Your task to perform on an android device: Open the calendar app, open the side menu, and click the "Day" option Image 0: 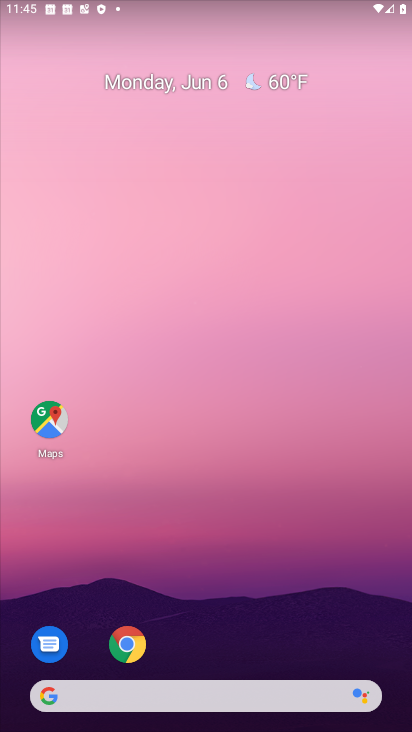
Step 0: drag from (211, 602) to (286, 80)
Your task to perform on an android device: Open the calendar app, open the side menu, and click the "Day" option Image 1: 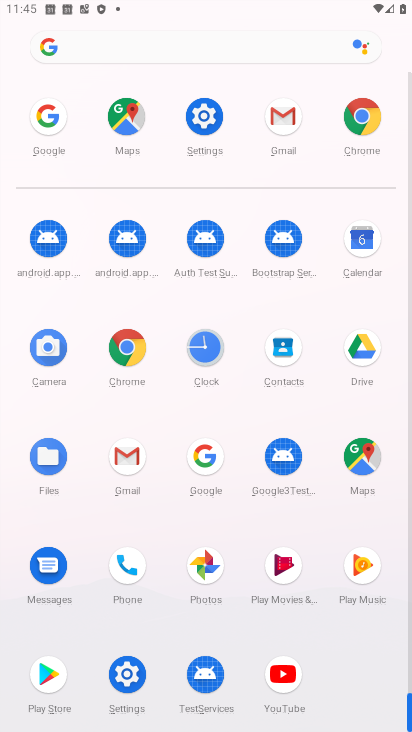
Step 1: click (369, 132)
Your task to perform on an android device: Open the calendar app, open the side menu, and click the "Day" option Image 2: 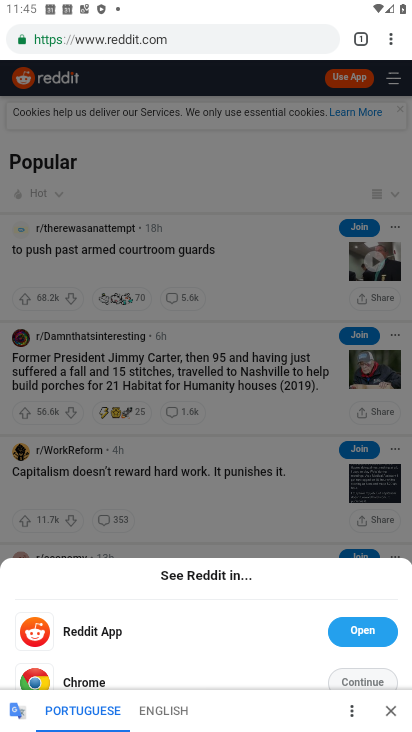
Step 2: click (395, 40)
Your task to perform on an android device: Open the calendar app, open the side menu, and click the "Day" option Image 3: 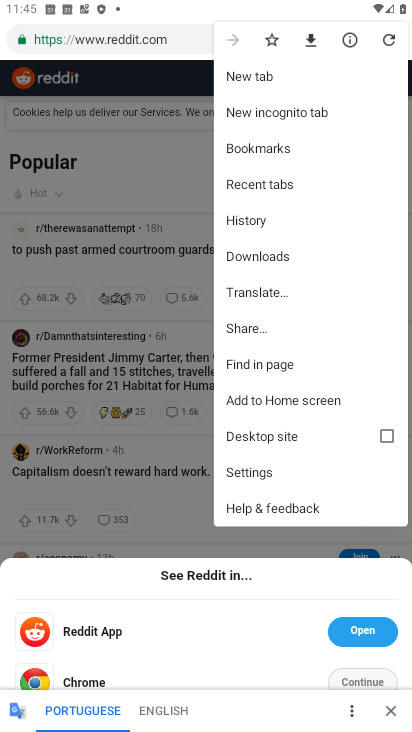
Step 3: press home button
Your task to perform on an android device: Open the calendar app, open the side menu, and click the "Day" option Image 4: 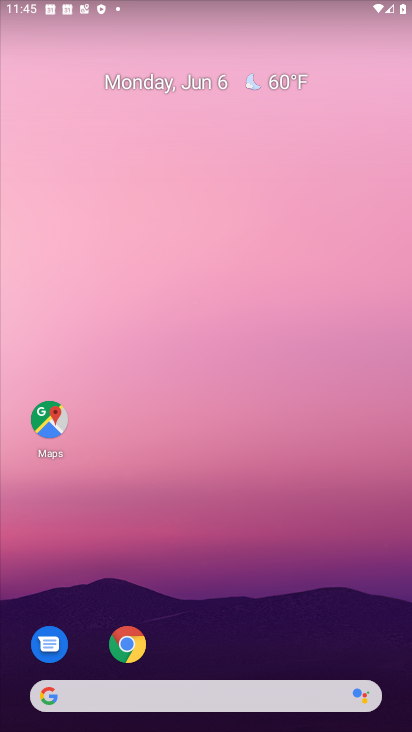
Step 4: drag from (238, 562) to (318, 59)
Your task to perform on an android device: Open the calendar app, open the side menu, and click the "Day" option Image 5: 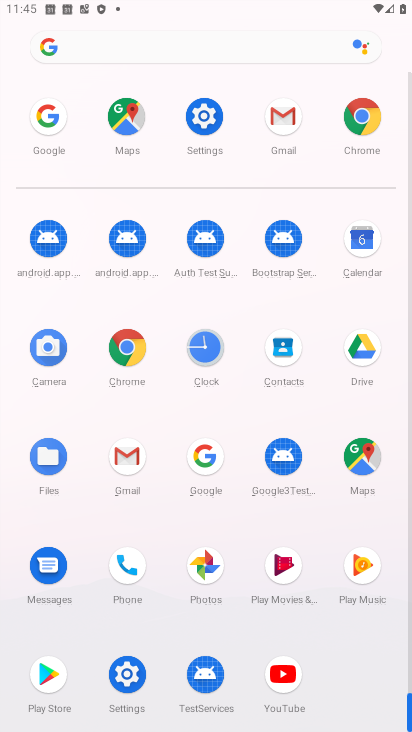
Step 5: click (365, 260)
Your task to perform on an android device: Open the calendar app, open the side menu, and click the "Day" option Image 6: 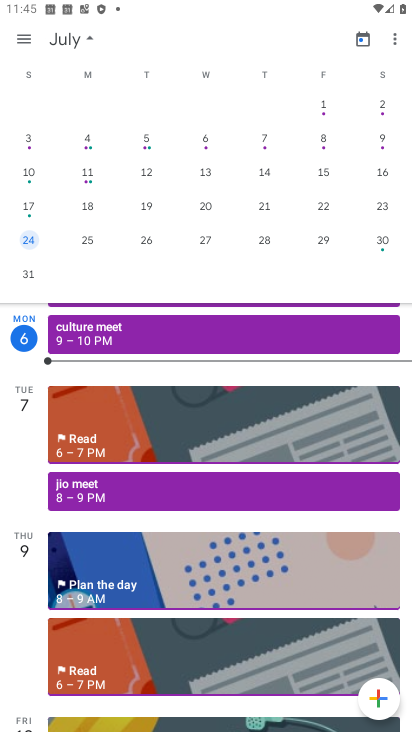
Step 6: click (6, 41)
Your task to perform on an android device: Open the calendar app, open the side menu, and click the "Day" option Image 7: 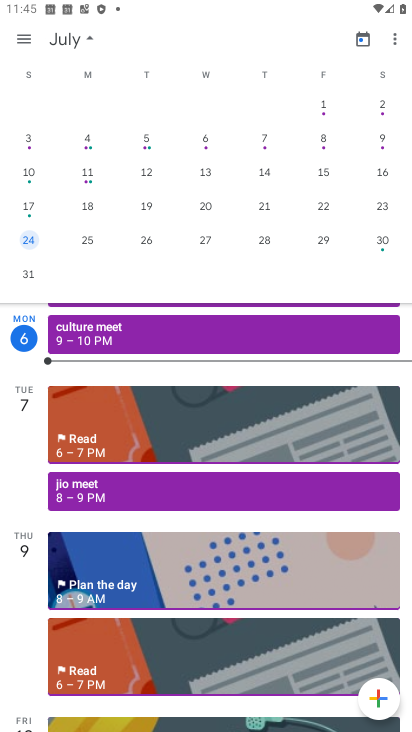
Step 7: click (29, 47)
Your task to perform on an android device: Open the calendar app, open the side menu, and click the "Day" option Image 8: 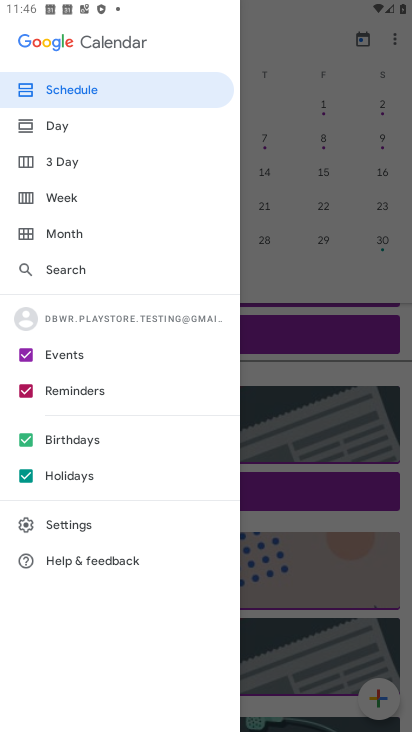
Step 8: click (65, 124)
Your task to perform on an android device: Open the calendar app, open the side menu, and click the "Day" option Image 9: 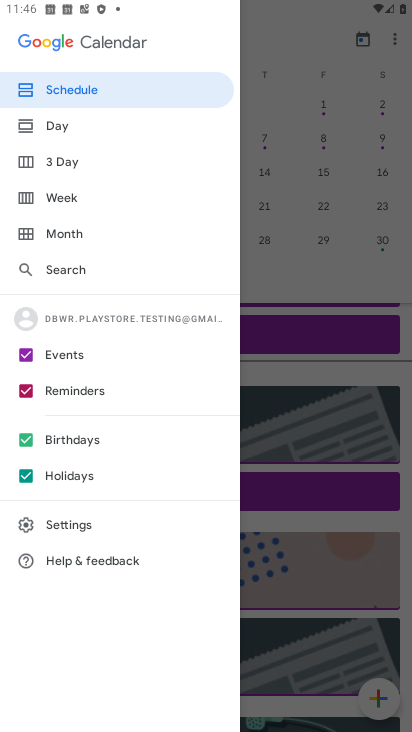
Step 9: click (74, 128)
Your task to perform on an android device: Open the calendar app, open the side menu, and click the "Day" option Image 10: 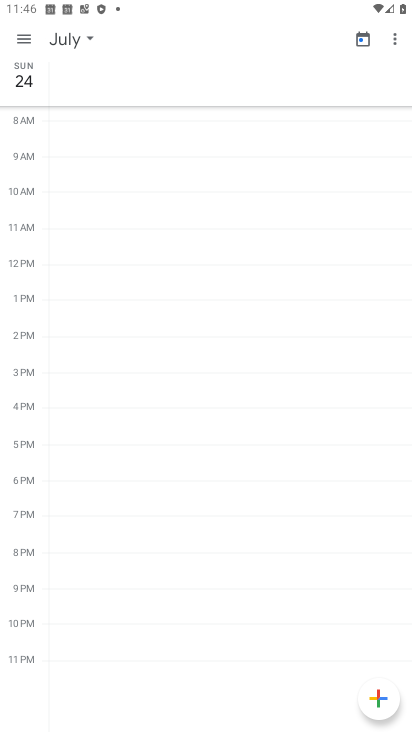
Step 10: task complete